Your task to perform on an android device: read, delete, or share a saved page in the chrome app Image 0: 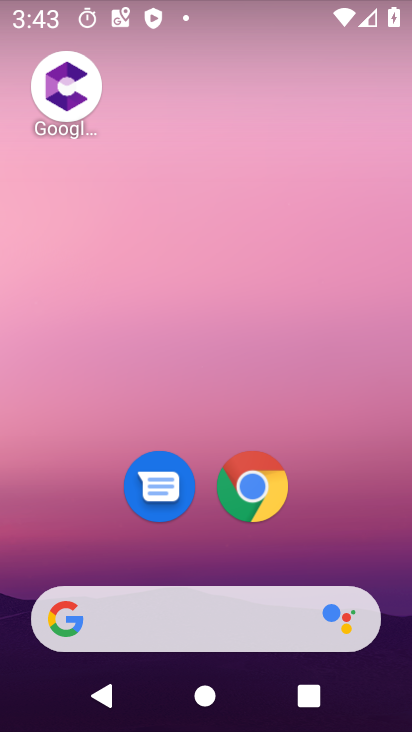
Step 0: click (234, 479)
Your task to perform on an android device: read, delete, or share a saved page in the chrome app Image 1: 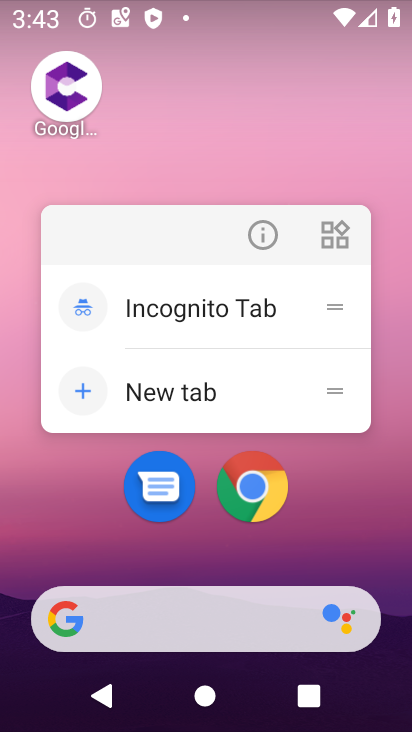
Step 1: click (250, 494)
Your task to perform on an android device: read, delete, or share a saved page in the chrome app Image 2: 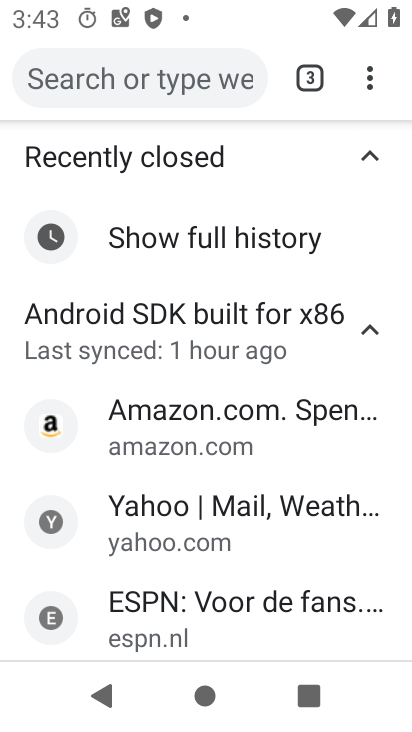
Step 2: click (369, 81)
Your task to perform on an android device: read, delete, or share a saved page in the chrome app Image 3: 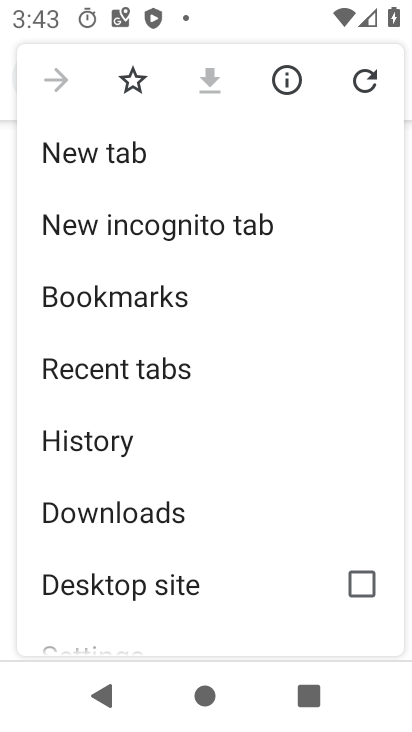
Step 3: click (94, 512)
Your task to perform on an android device: read, delete, or share a saved page in the chrome app Image 4: 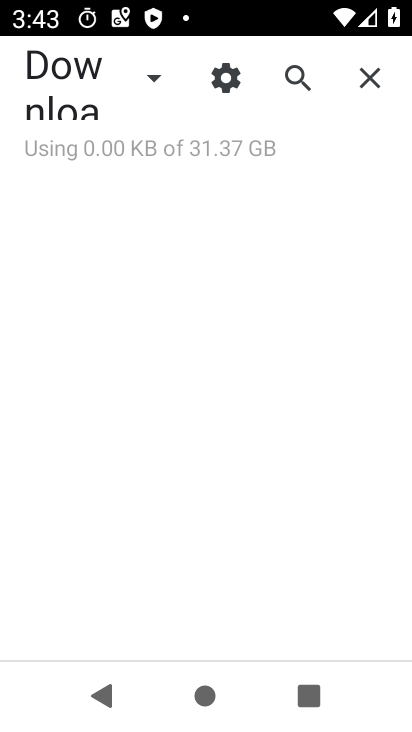
Step 4: task complete